Your task to perform on an android device: create a new album in the google photos Image 0: 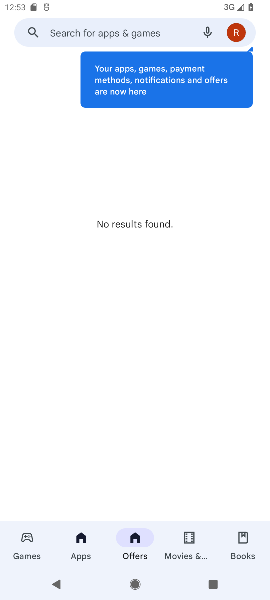
Step 0: press home button
Your task to perform on an android device: create a new album in the google photos Image 1: 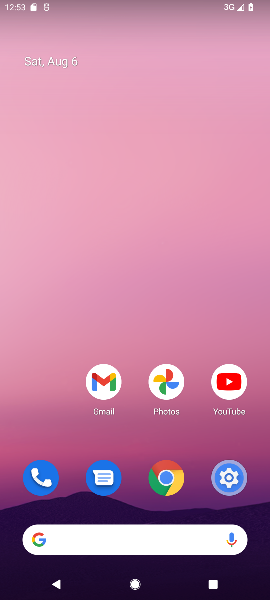
Step 1: click (164, 391)
Your task to perform on an android device: create a new album in the google photos Image 2: 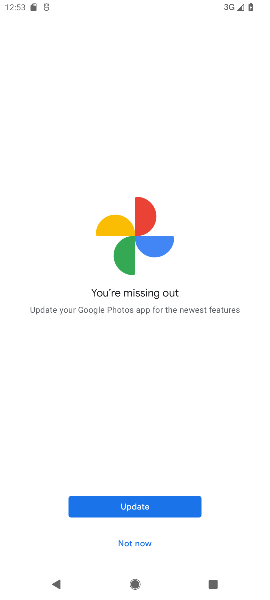
Step 2: click (135, 541)
Your task to perform on an android device: create a new album in the google photos Image 3: 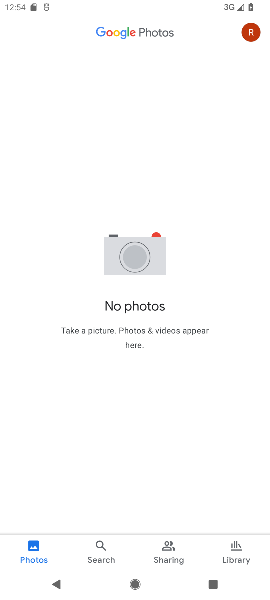
Step 3: task complete